Your task to perform on an android device: Open Youtube and go to "Your channel" Image 0: 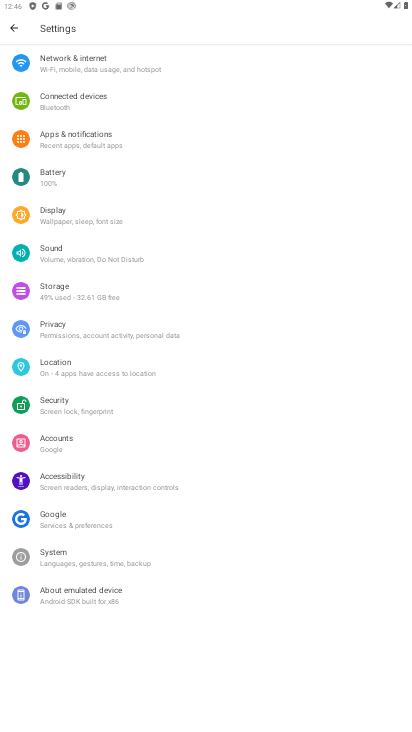
Step 0: press home button
Your task to perform on an android device: Open Youtube and go to "Your channel" Image 1: 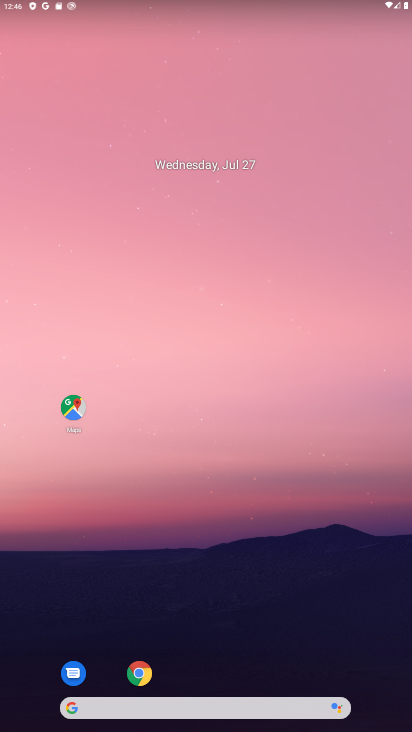
Step 1: drag from (209, 696) to (217, 1)
Your task to perform on an android device: Open Youtube and go to "Your channel" Image 2: 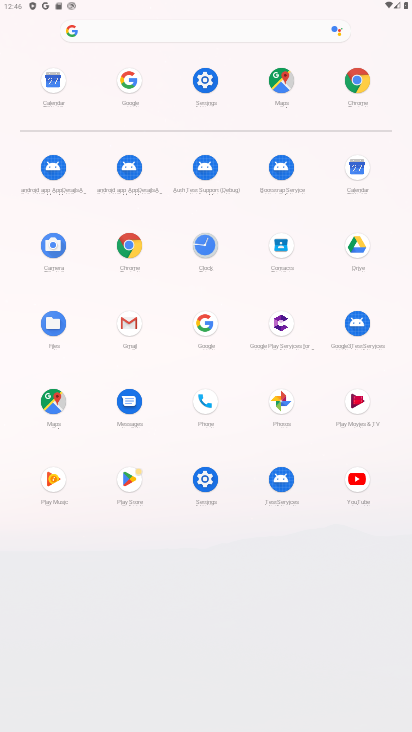
Step 2: click (361, 480)
Your task to perform on an android device: Open Youtube and go to "Your channel" Image 3: 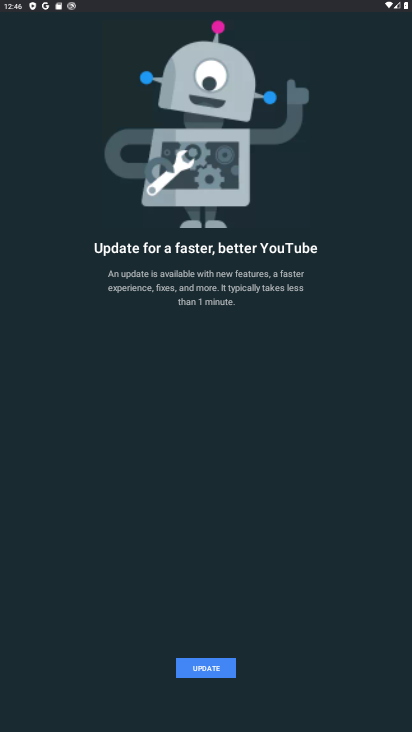
Step 3: click (185, 665)
Your task to perform on an android device: Open Youtube and go to "Your channel" Image 4: 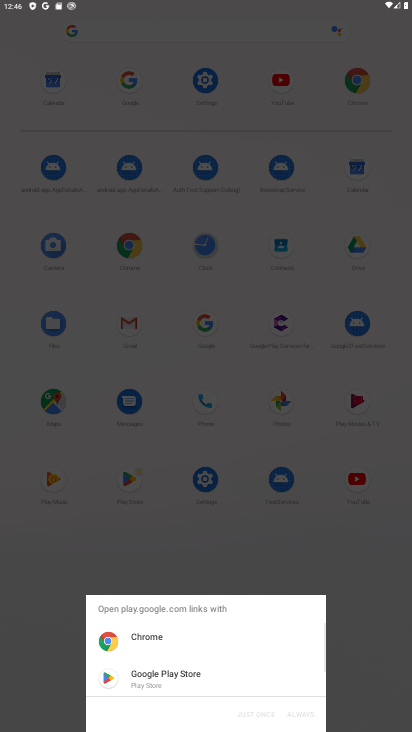
Step 4: click (125, 682)
Your task to perform on an android device: Open Youtube and go to "Your channel" Image 5: 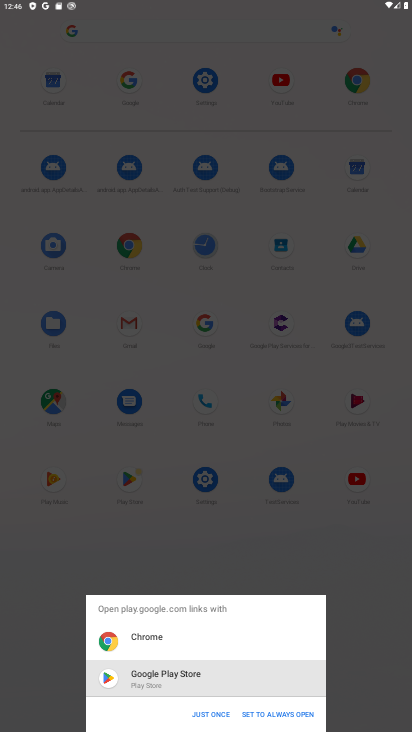
Step 5: click (211, 717)
Your task to perform on an android device: Open Youtube and go to "Your channel" Image 6: 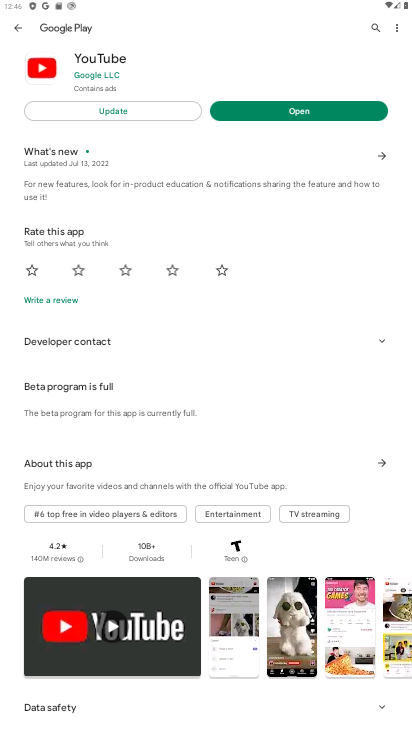
Step 6: click (117, 114)
Your task to perform on an android device: Open Youtube and go to "Your channel" Image 7: 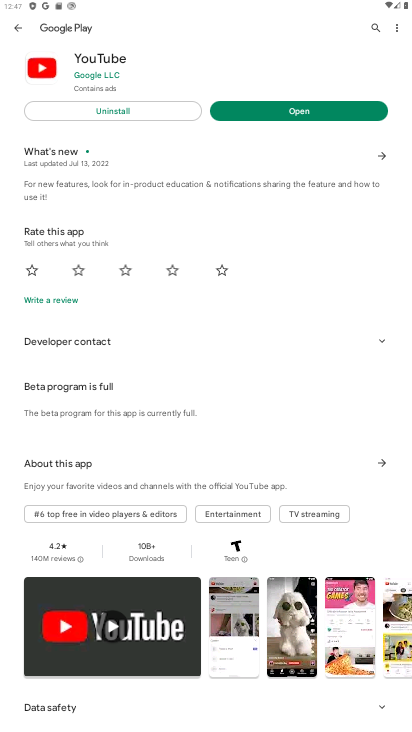
Step 7: click (238, 111)
Your task to perform on an android device: Open Youtube and go to "Your channel" Image 8: 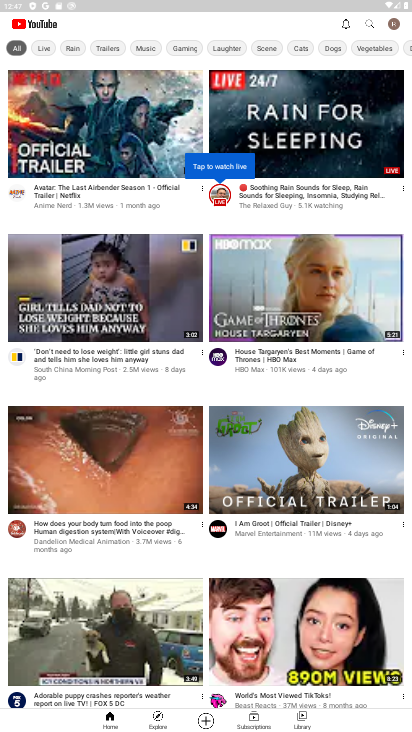
Step 8: click (392, 25)
Your task to perform on an android device: Open Youtube and go to "Your channel" Image 9: 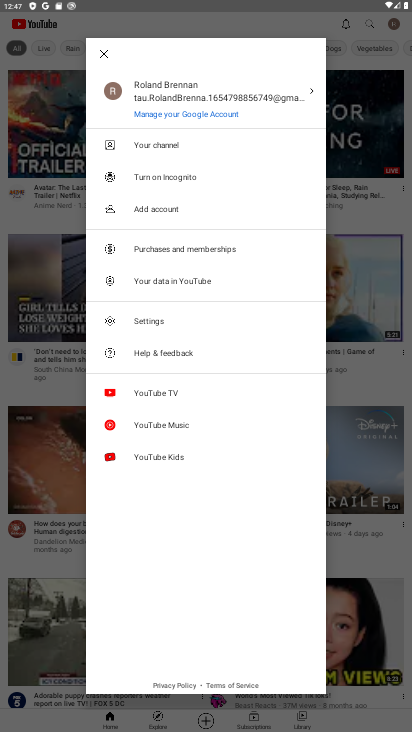
Step 9: click (159, 147)
Your task to perform on an android device: Open Youtube and go to "Your channel" Image 10: 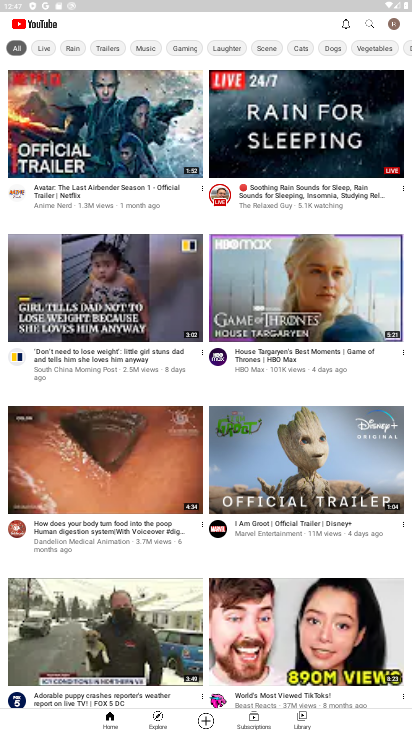
Step 10: task complete